Your task to perform on an android device: turn smart compose on in the gmail app Image 0: 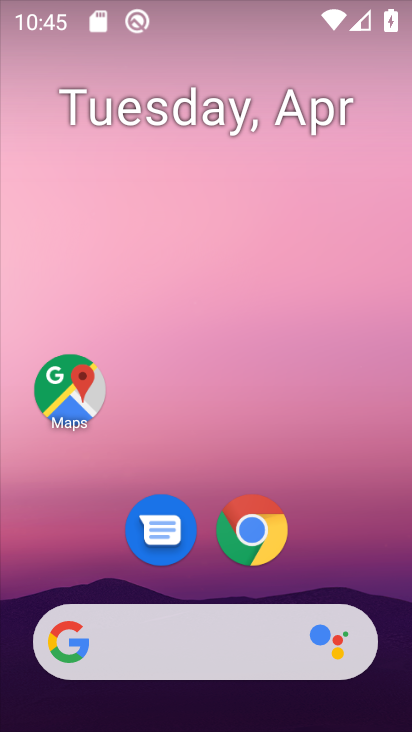
Step 0: drag from (163, 639) to (324, 172)
Your task to perform on an android device: turn smart compose on in the gmail app Image 1: 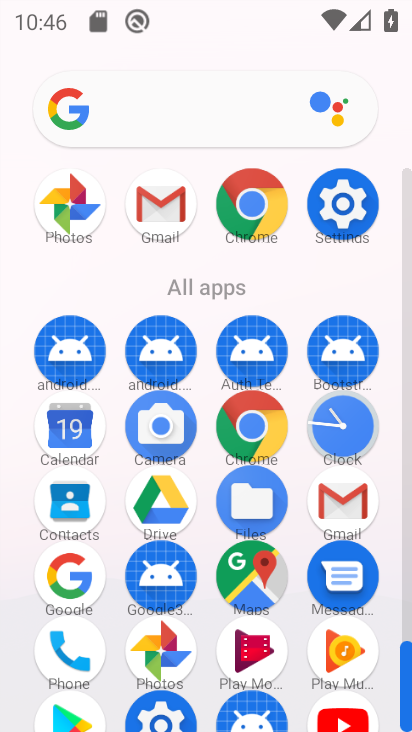
Step 1: click (171, 217)
Your task to perform on an android device: turn smart compose on in the gmail app Image 2: 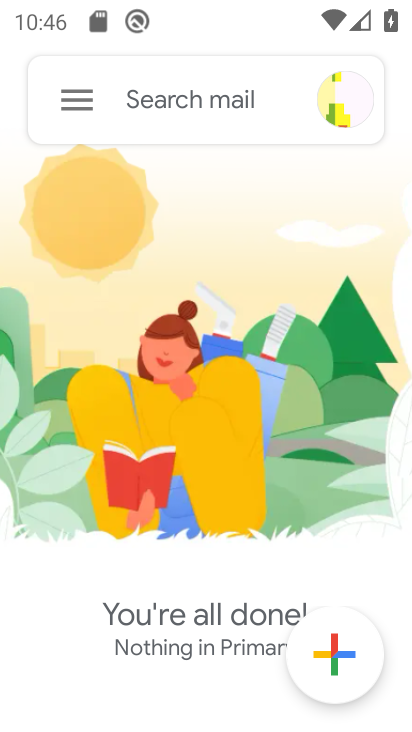
Step 2: click (80, 92)
Your task to perform on an android device: turn smart compose on in the gmail app Image 3: 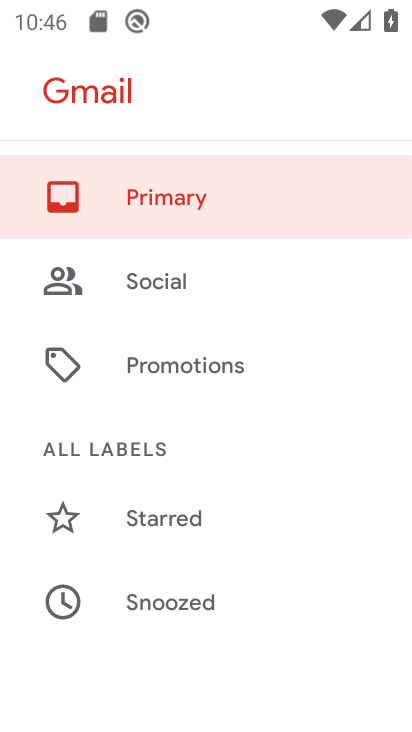
Step 3: drag from (259, 585) to (387, 160)
Your task to perform on an android device: turn smart compose on in the gmail app Image 4: 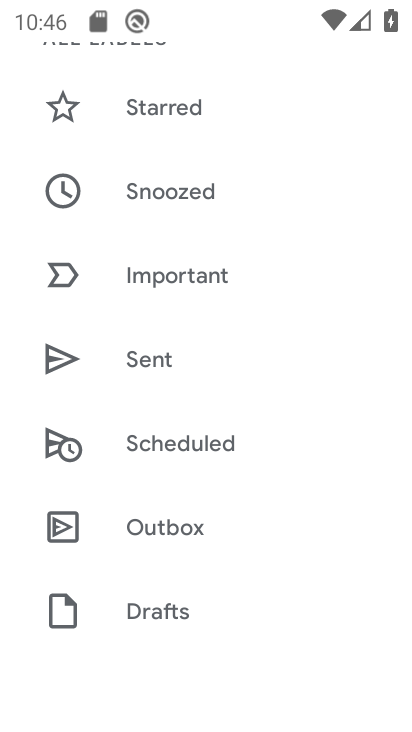
Step 4: drag from (211, 599) to (403, 35)
Your task to perform on an android device: turn smart compose on in the gmail app Image 5: 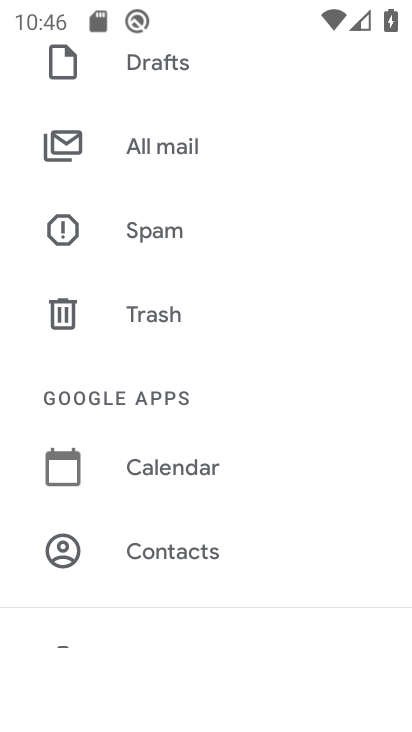
Step 5: drag from (240, 569) to (339, 73)
Your task to perform on an android device: turn smart compose on in the gmail app Image 6: 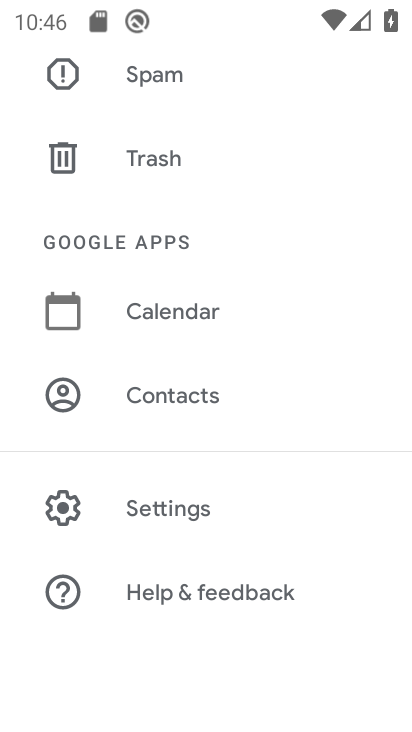
Step 6: click (178, 514)
Your task to perform on an android device: turn smart compose on in the gmail app Image 7: 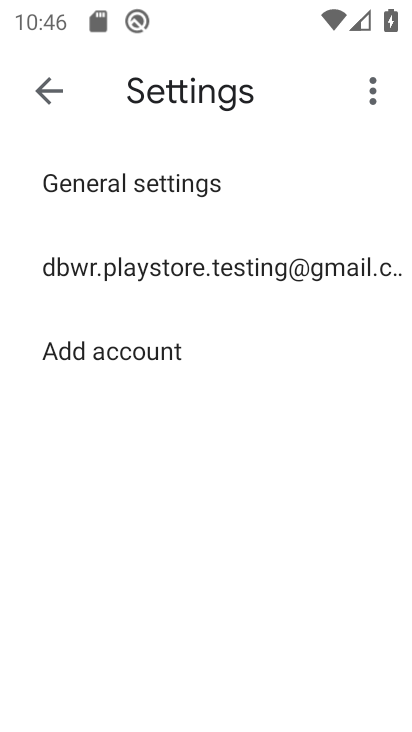
Step 7: click (286, 266)
Your task to perform on an android device: turn smart compose on in the gmail app Image 8: 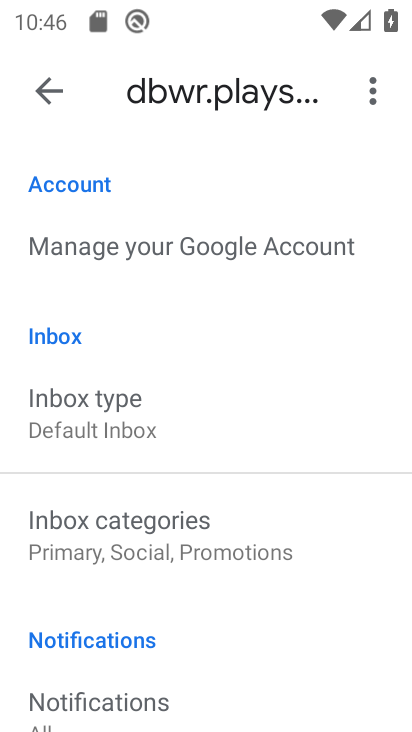
Step 8: task complete